Your task to perform on an android device: open chrome and create a bookmark for the current page Image 0: 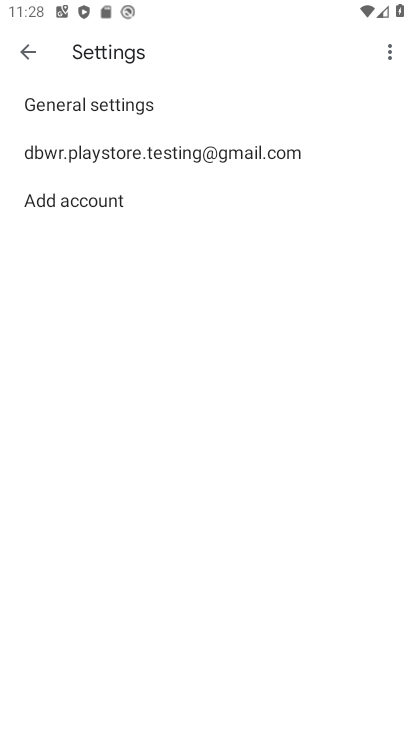
Step 0: task complete